Your task to perform on an android device: toggle notification dots Image 0: 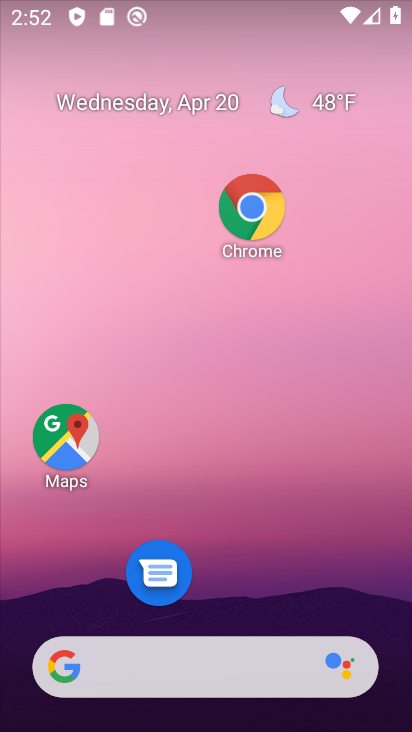
Step 0: drag from (259, 646) to (308, 291)
Your task to perform on an android device: toggle notification dots Image 1: 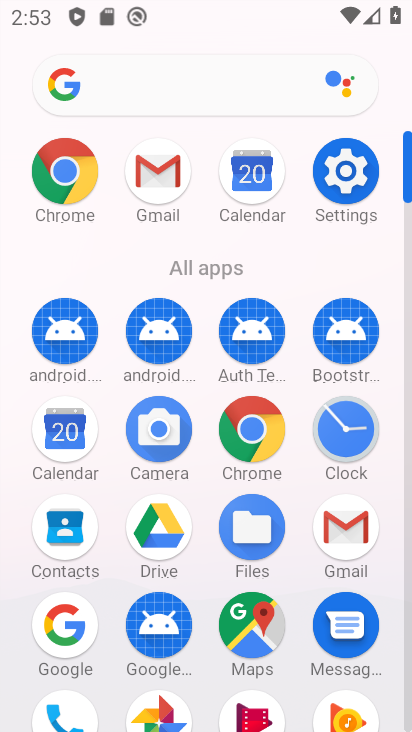
Step 1: click (343, 168)
Your task to perform on an android device: toggle notification dots Image 2: 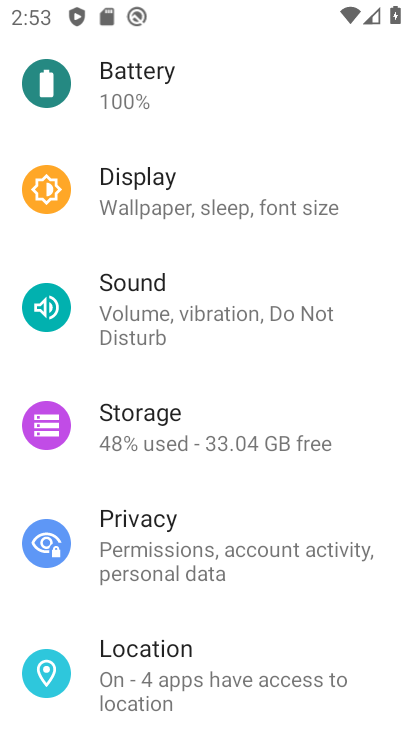
Step 2: drag from (250, 299) to (238, 560)
Your task to perform on an android device: toggle notification dots Image 3: 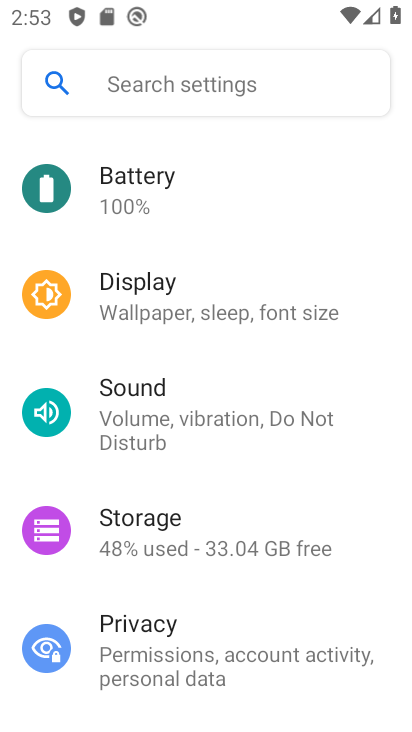
Step 3: drag from (232, 484) to (294, 197)
Your task to perform on an android device: toggle notification dots Image 4: 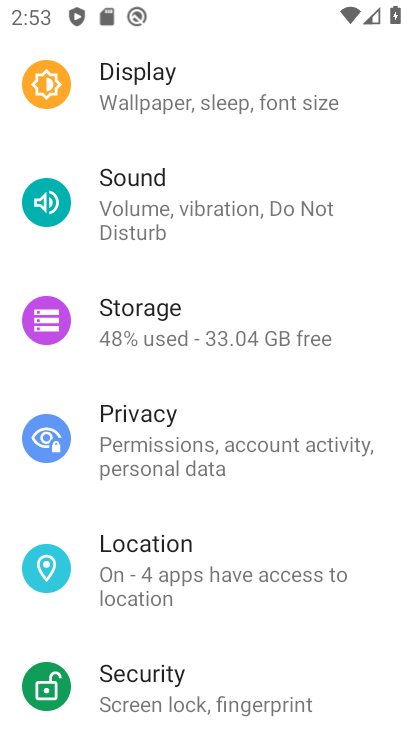
Step 4: drag from (294, 316) to (280, 718)
Your task to perform on an android device: toggle notification dots Image 5: 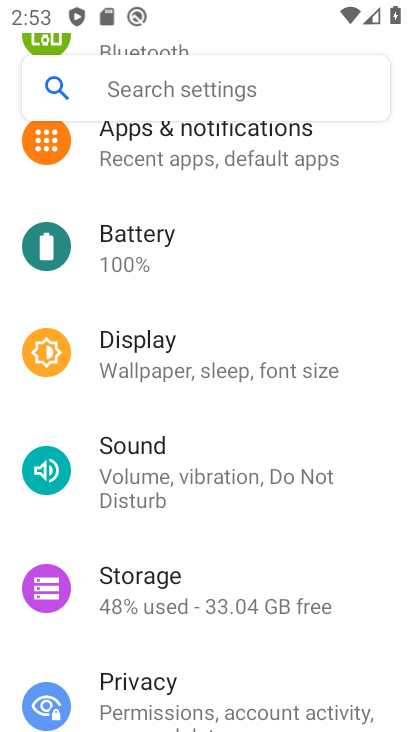
Step 5: click (276, 174)
Your task to perform on an android device: toggle notification dots Image 6: 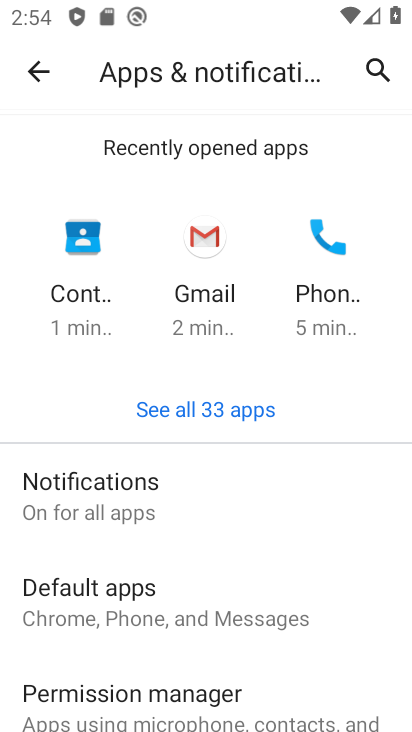
Step 6: click (210, 493)
Your task to perform on an android device: toggle notification dots Image 7: 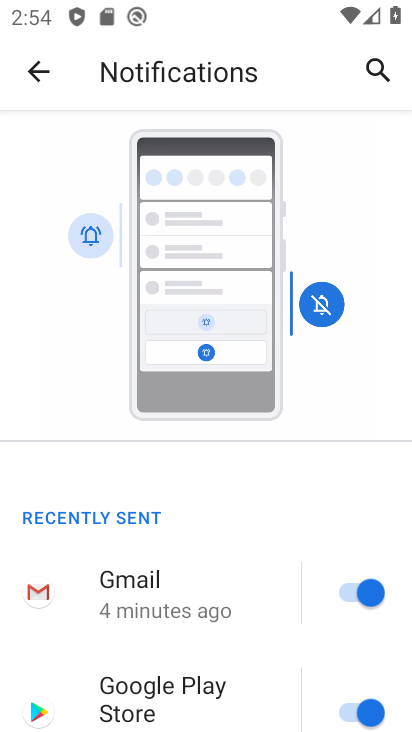
Step 7: drag from (200, 543) to (327, 109)
Your task to perform on an android device: toggle notification dots Image 8: 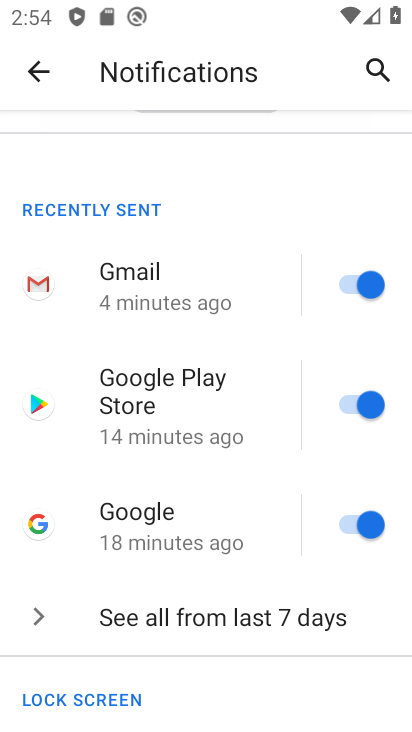
Step 8: drag from (225, 440) to (294, 164)
Your task to perform on an android device: toggle notification dots Image 9: 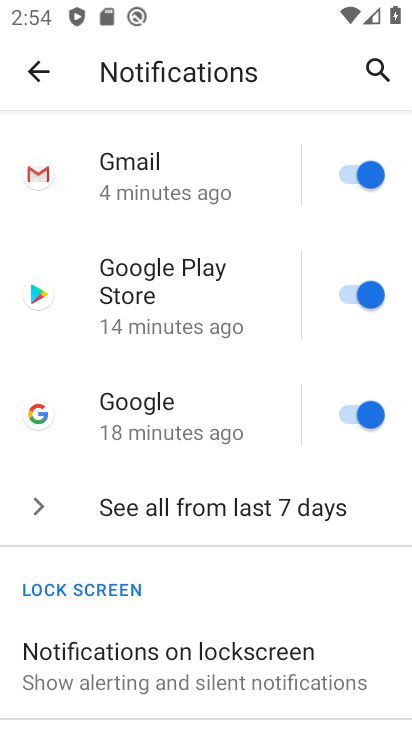
Step 9: drag from (205, 428) to (260, 139)
Your task to perform on an android device: toggle notification dots Image 10: 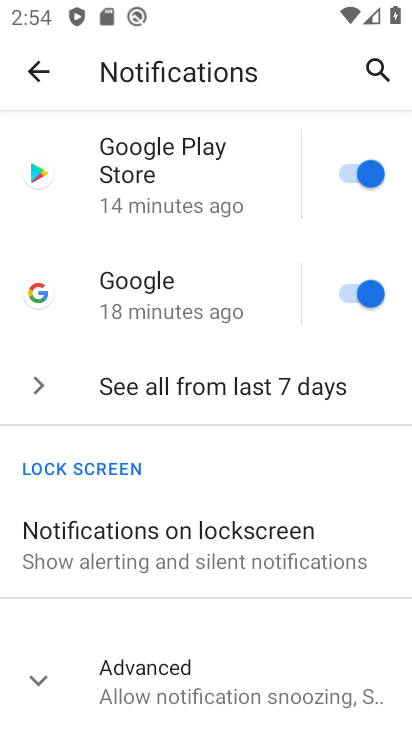
Step 10: click (209, 668)
Your task to perform on an android device: toggle notification dots Image 11: 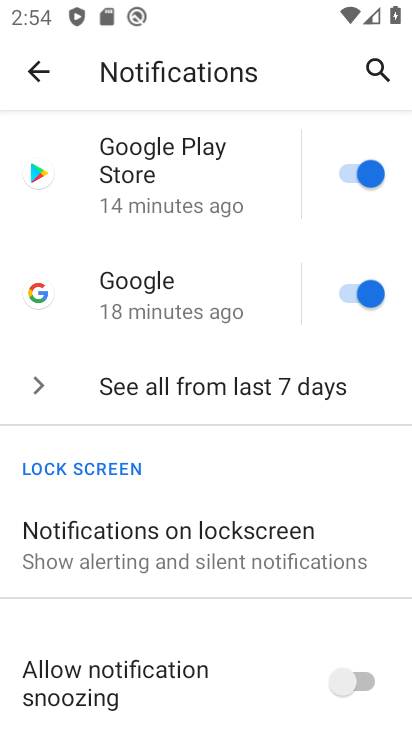
Step 11: drag from (214, 648) to (276, 356)
Your task to perform on an android device: toggle notification dots Image 12: 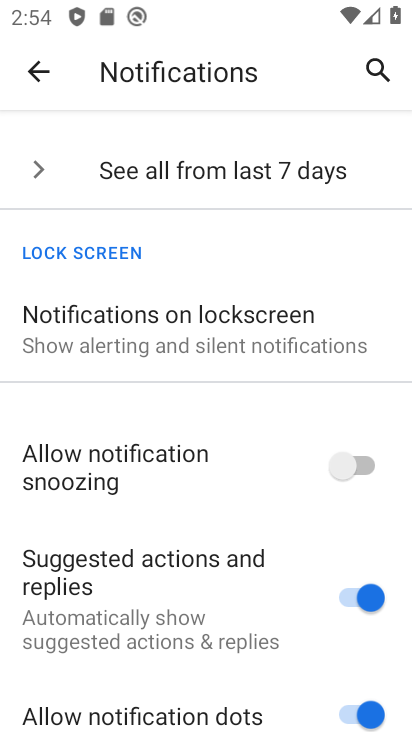
Step 12: drag from (253, 580) to (299, 380)
Your task to perform on an android device: toggle notification dots Image 13: 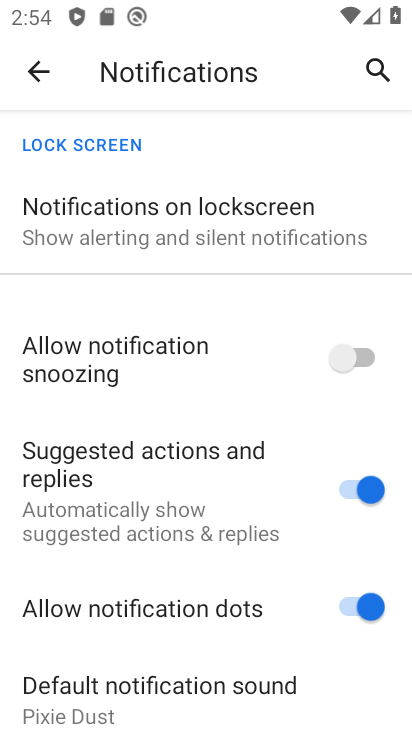
Step 13: click (345, 608)
Your task to perform on an android device: toggle notification dots Image 14: 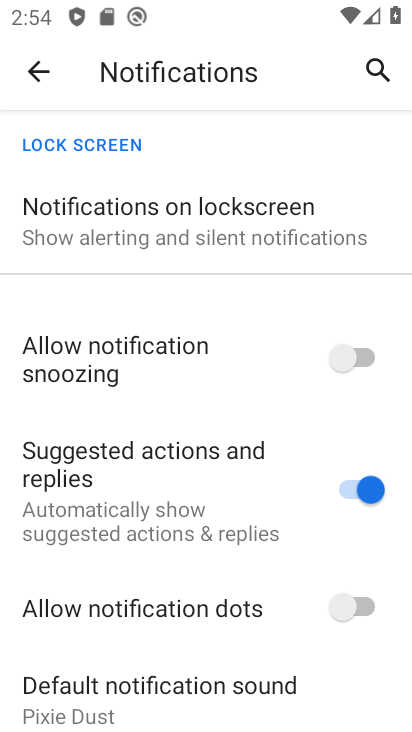
Step 14: task complete